Your task to perform on an android device: turn on priority inbox in the gmail app Image 0: 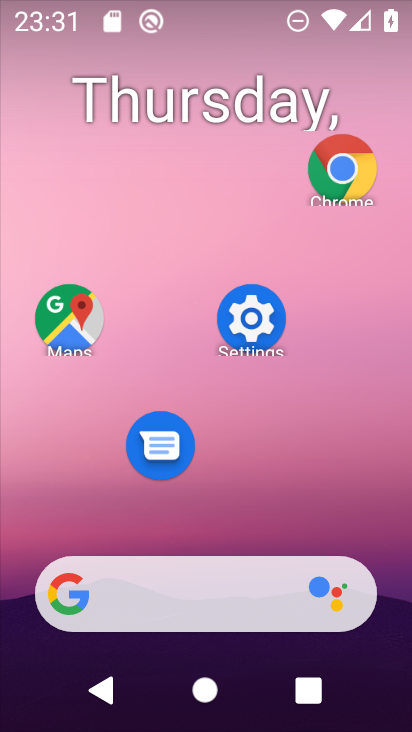
Step 0: drag from (203, 517) to (238, 191)
Your task to perform on an android device: turn on priority inbox in the gmail app Image 1: 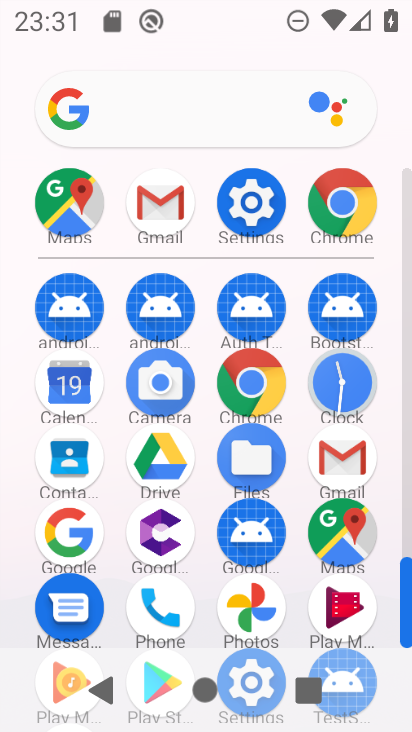
Step 1: click (350, 473)
Your task to perform on an android device: turn on priority inbox in the gmail app Image 2: 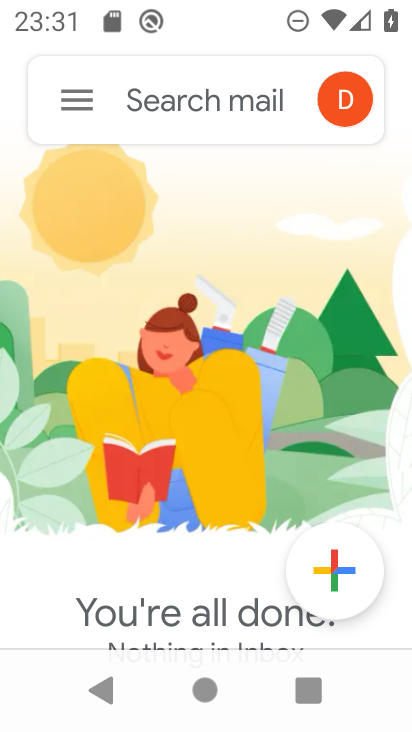
Step 2: drag from (195, 578) to (178, 181)
Your task to perform on an android device: turn on priority inbox in the gmail app Image 3: 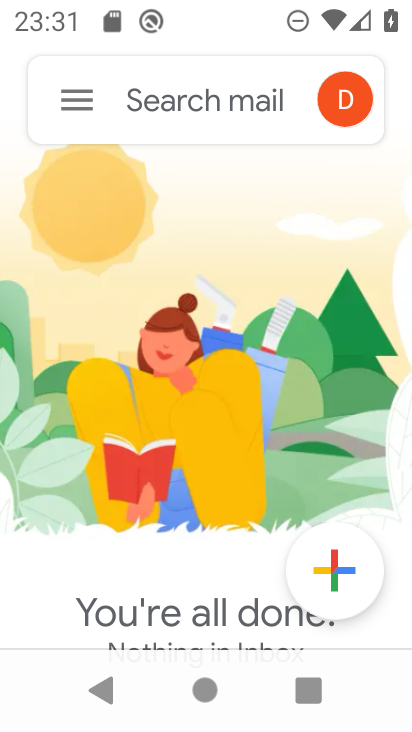
Step 3: click (91, 125)
Your task to perform on an android device: turn on priority inbox in the gmail app Image 4: 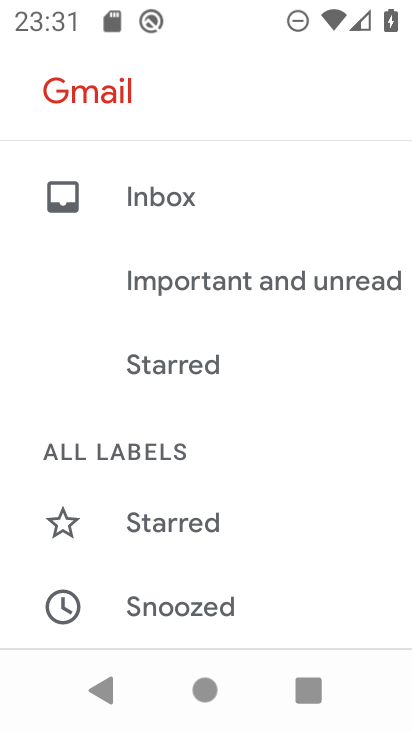
Step 4: drag from (154, 579) to (212, 95)
Your task to perform on an android device: turn on priority inbox in the gmail app Image 5: 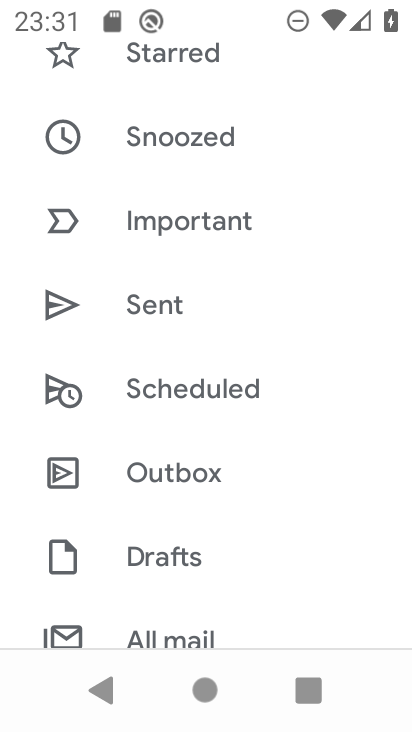
Step 5: drag from (239, 532) to (260, 59)
Your task to perform on an android device: turn on priority inbox in the gmail app Image 6: 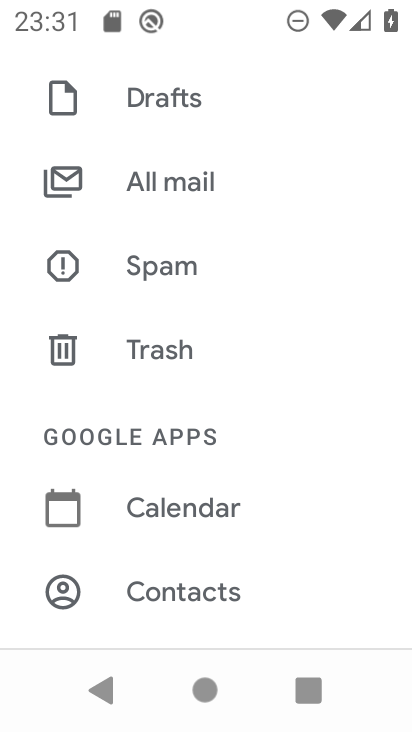
Step 6: drag from (186, 575) to (238, 81)
Your task to perform on an android device: turn on priority inbox in the gmail app Image 7: 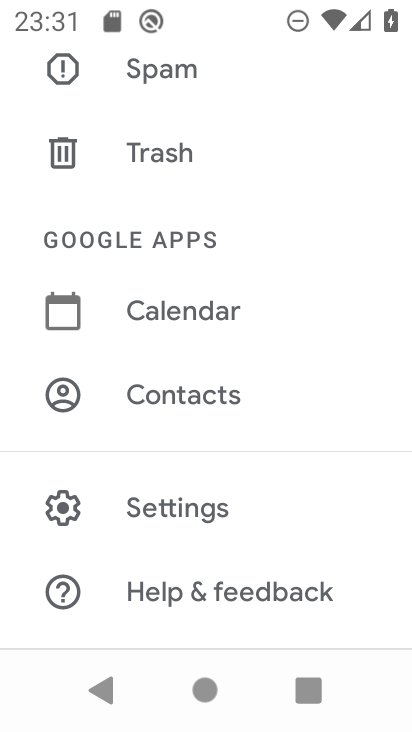
Step 7: click (154, 509)
Your task to perform on an android device: turn on priority inbox in the gmail app Image 8: 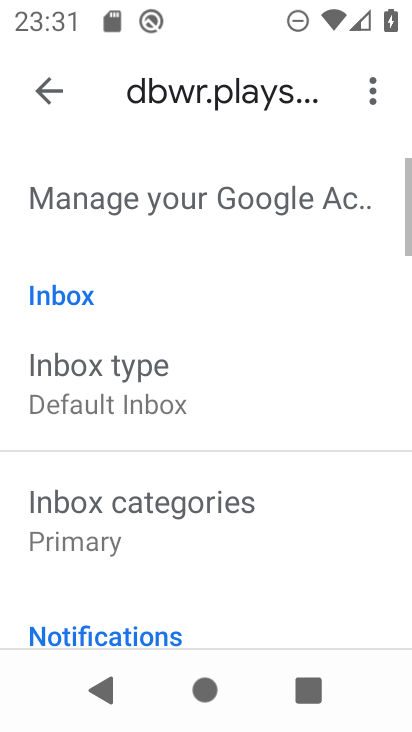
Step 8: drag from (243, 512) to (250, 112)
Your task to perform on an android device: turn on priority inbox in the gmail app Image 9: 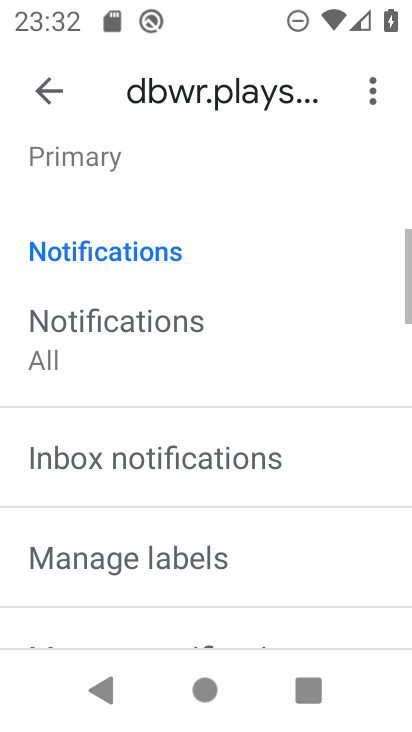
Step 9: drag from (246, 141) to (210, 721)
Your task to perform on an android device: turn on priority inbox in the gmail app Image 10: 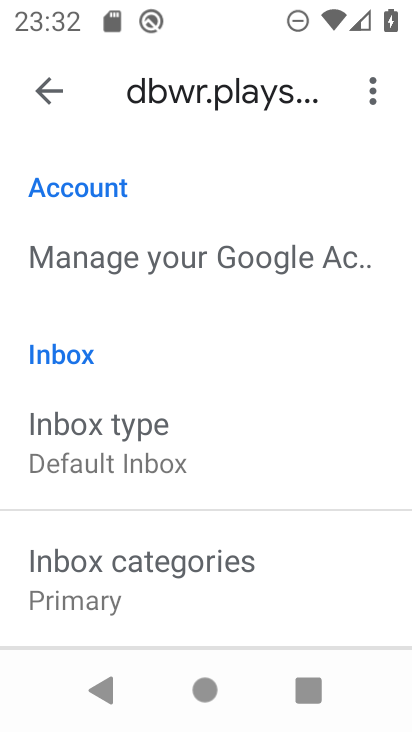
Step 10: click (132, 469)
Your task to perform on an android device: turn on priority inbox in the gmail app Image 11: 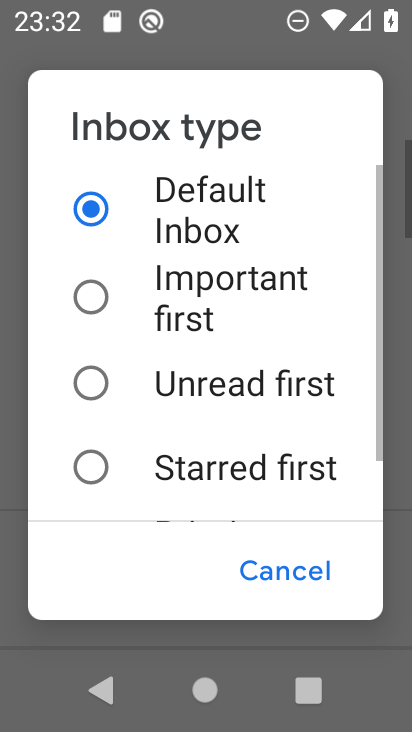
Step 11: drag from (161, 447) to (230, 45)
Your task to perform on an android device: turn on priority inbox in the gmail app Image 12: 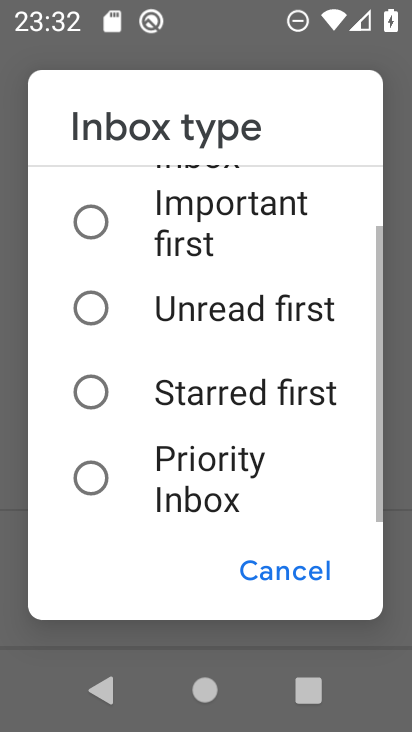
Step 12: click (173, 468)
Your task to perform on an android device: turn on priority inbox in the gmail app Image 13: 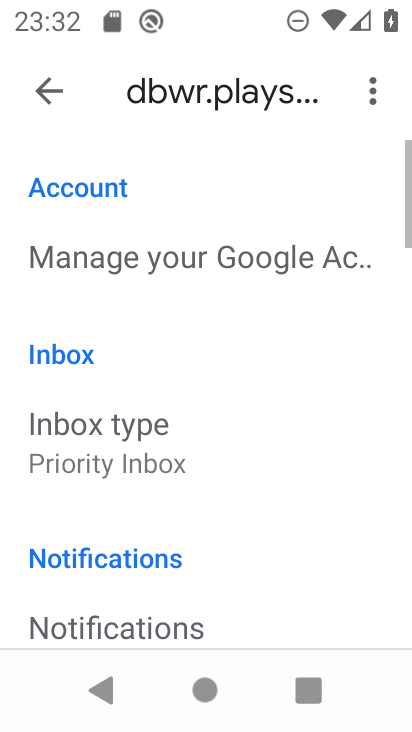
Step 13: task complete